Your task to perform on an android device: Go to network settings Image 0: 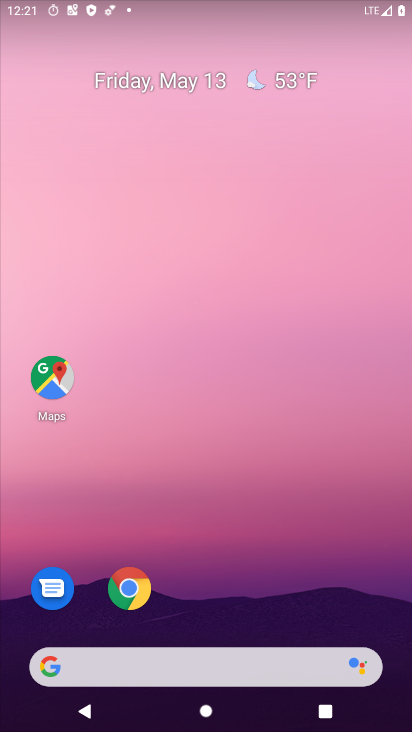
Step 0: drag from (249, 609) to (246, 83)
Your task to perform on an android device: Go to network settings Image 1: 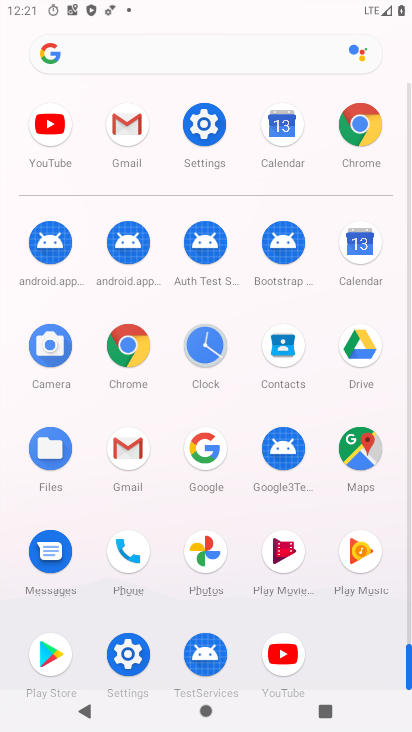
Step 1: click (211, 124)
Your task to perform on an android device: Go to network settings Image 2: 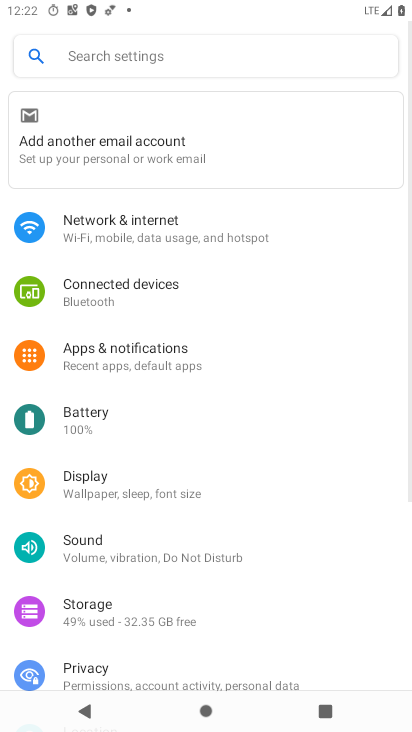
Step 2: click (151, 228)
Your task to perform on an android device: Go to network settings Image 3: 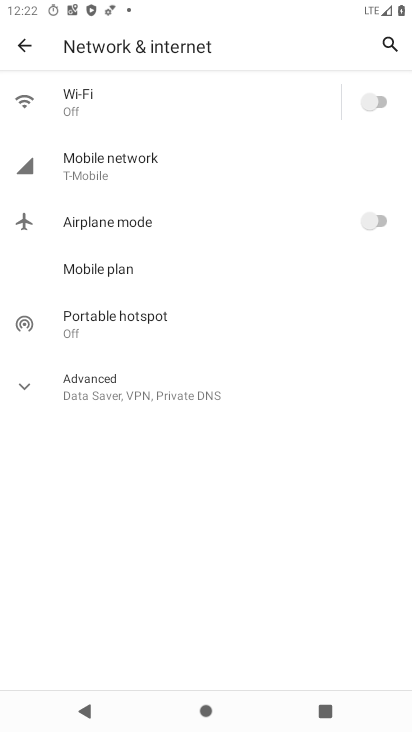
Step 3: click (152, 98)
Your task to perform on an android device: Go to network settings Image 4: 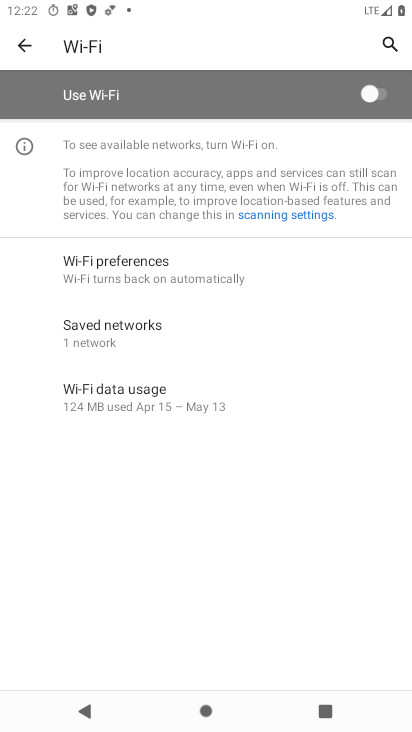
Step 4: click (369, 98)
Your task to perform on an android device: Go to network settings Image 5: 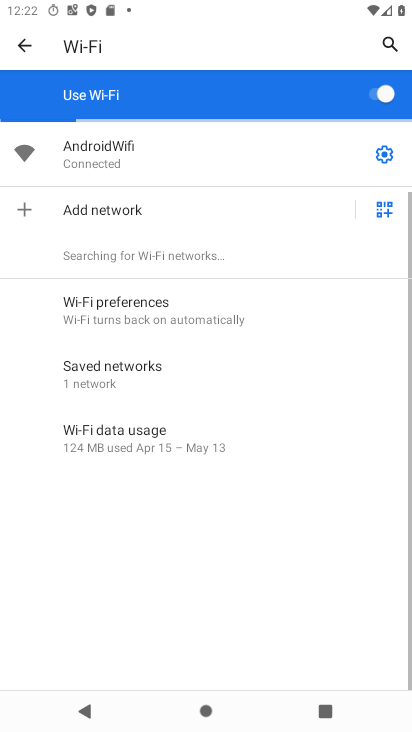
Step 5: click (388, 150)
Your task to perform on an android device: Go to network settings Image 6: 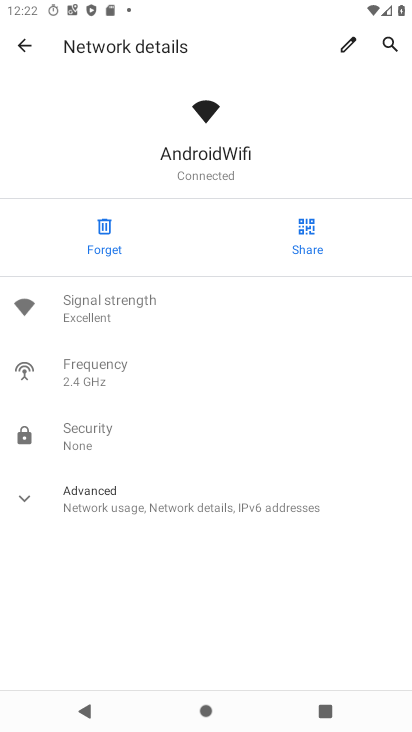
Step 6: task complete